Your task to perform on an android device: delete a single message in the gmail app Image 0: 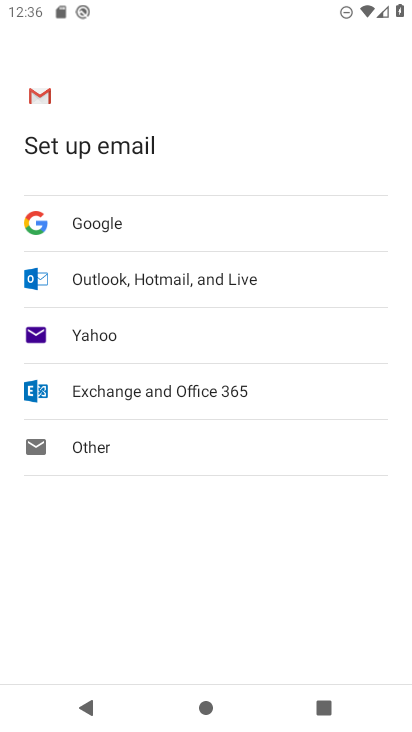
Step 0: press home button
Your task to perform on an android device: delete a single message in the gmail app Image 1: 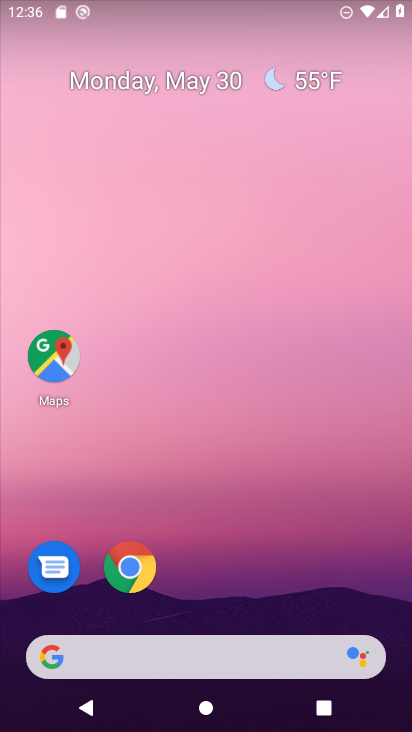
Step 1: drag from (220, 611) to (257, 50)
Your task to perform on an android device: delete a single message in the gmail app Image 2: 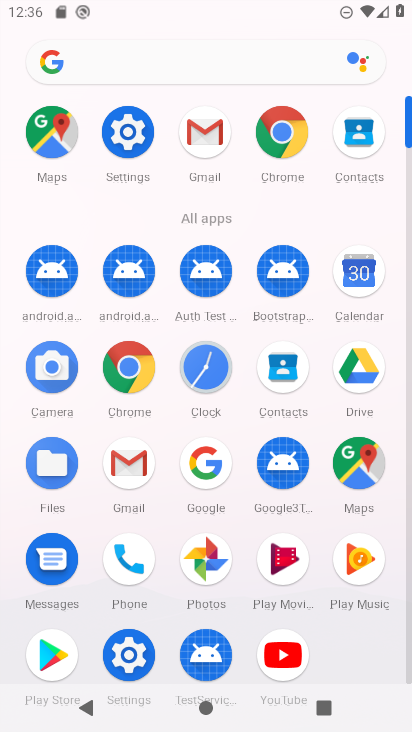
Step 2: click (133, 454)
Your task to perform on an android device: delete a single message in the gmail app Image 3: 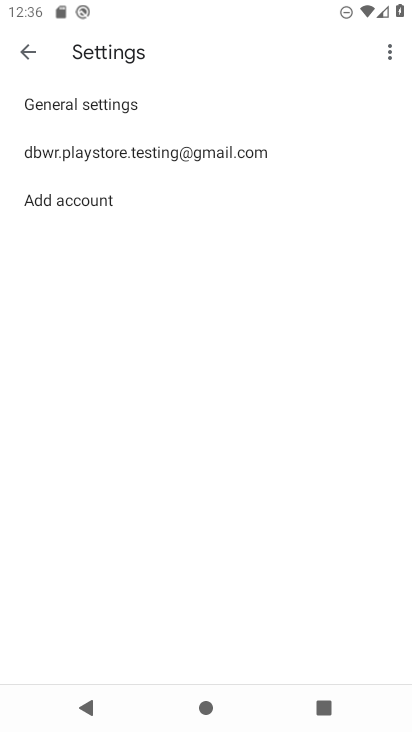
Step 3: click (35, 48)
Your task to perform on an android device: delete a single message in the gmail app Image 4: 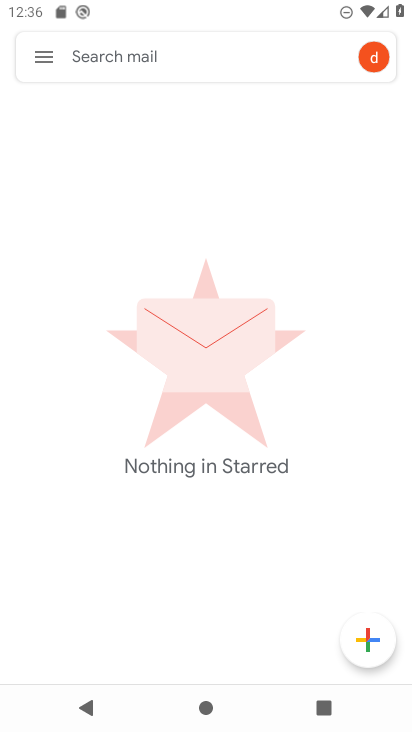
Step 4: click (35, 54)
Your task to perform on an android device: delete a single message in the gmail app Image 5: 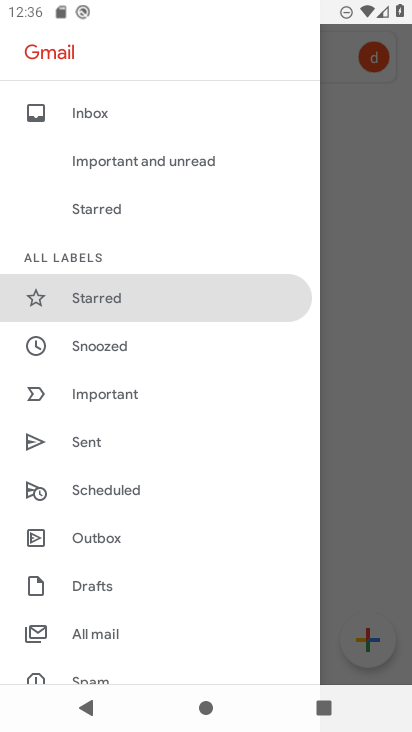
Step 5: click (114, 629)
Your task to perform on an android device: delete a single message in the gmail app Image 6: 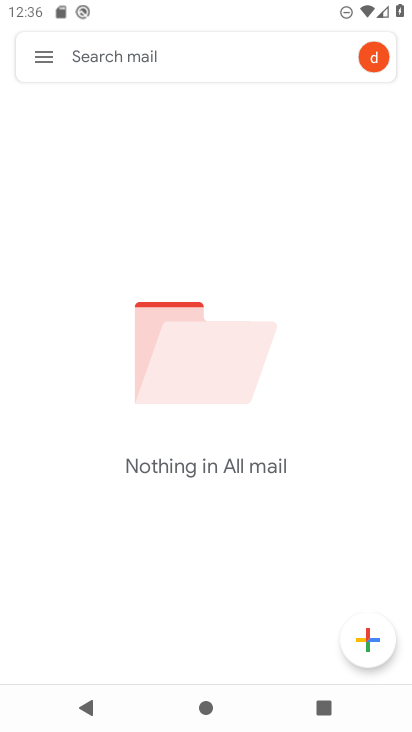
Step 6: task complete